Your task to perform on an android device: Search for hotels in Miami Image 0: 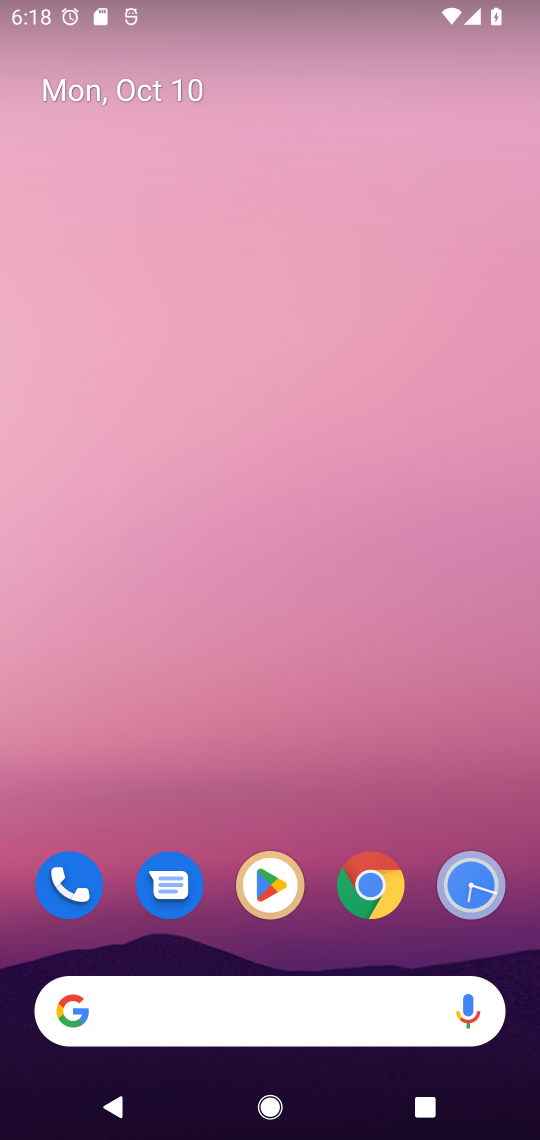
Step 0: click (366, 891)
Your task to perform on an android device: Search for hotels in Miami Image 1: 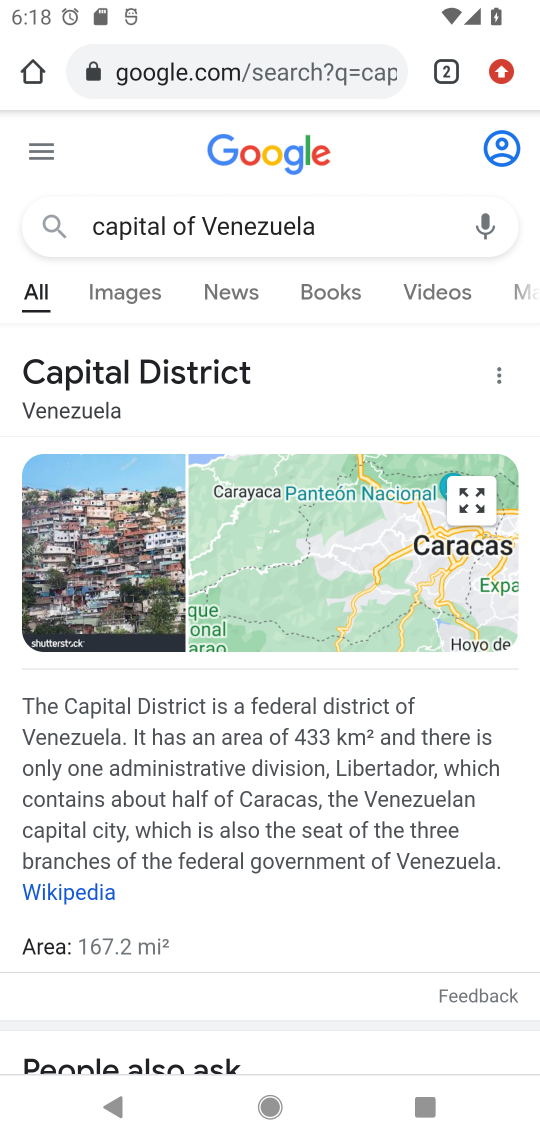
Step 1: click (336, 231)
Your task to perform on an android device: Search for hotels in Miami Image 2: 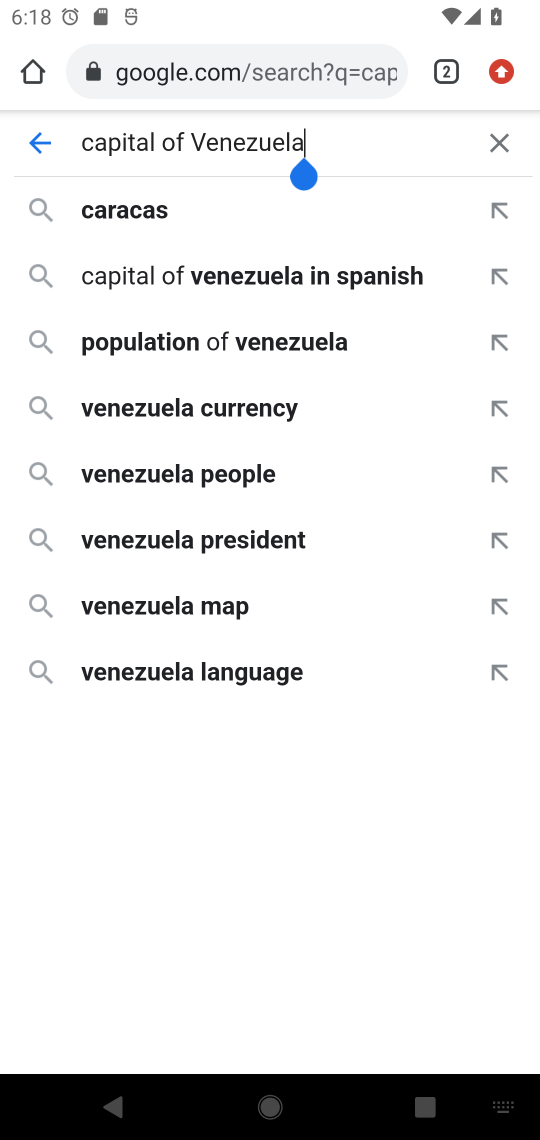
Step 2: click (501, 140)
Your task to perform on an android device: Search for hotels in Miami Image 3: 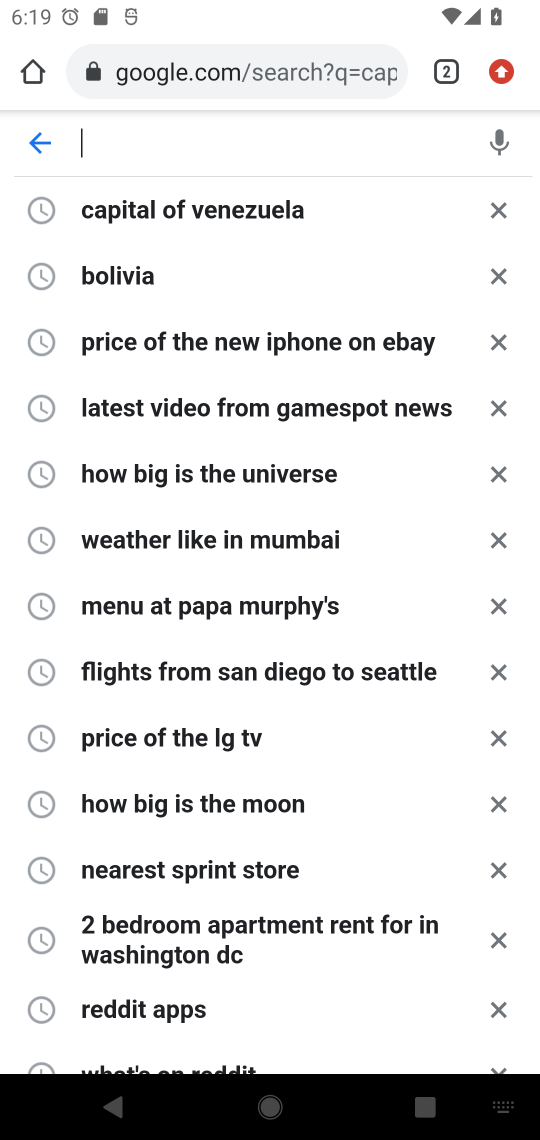
Step 3: type "hotels in Miami"
Your task to perform on an android device: Search for hotels in Miami Image 4: 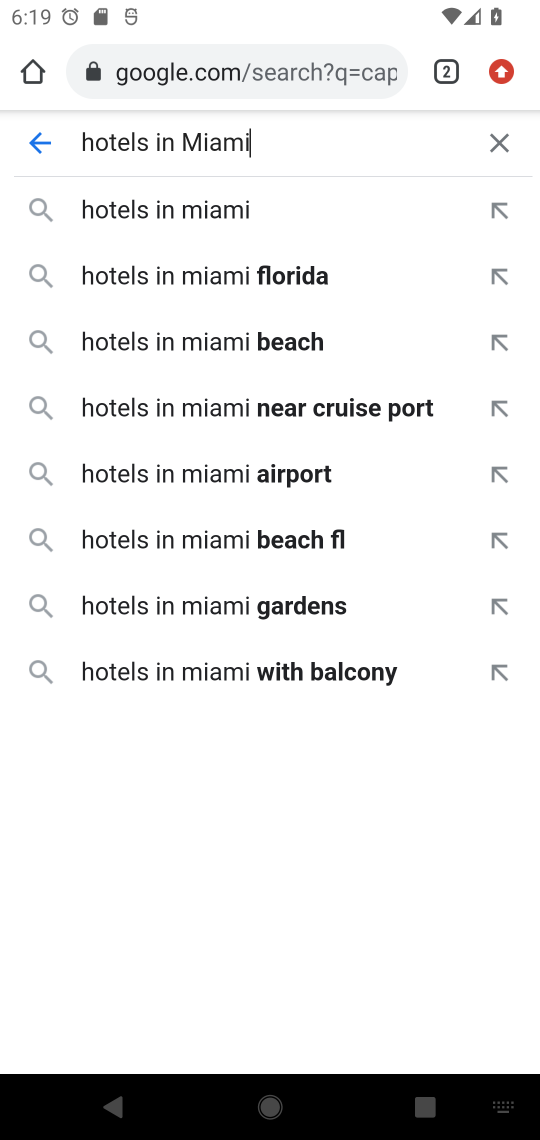
Step 4: click (198, 217)
Your task to perform on an android device: Search for hotels in Miami Image 5: 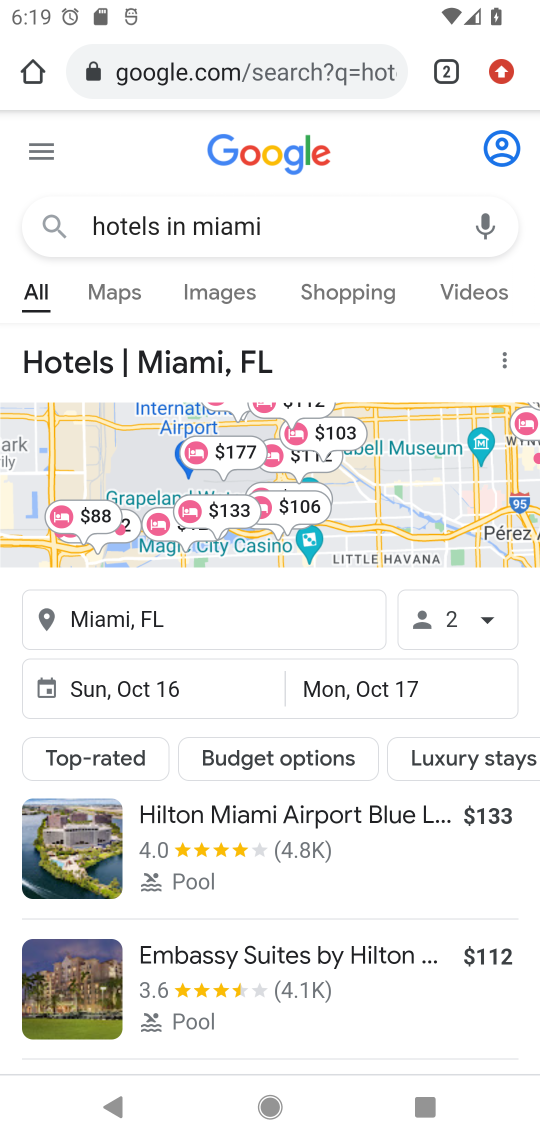
Step 5: drag from (375, 911) to (337, 425)
Your task to perform on an android device: Search for hotels in Miami Image 6: 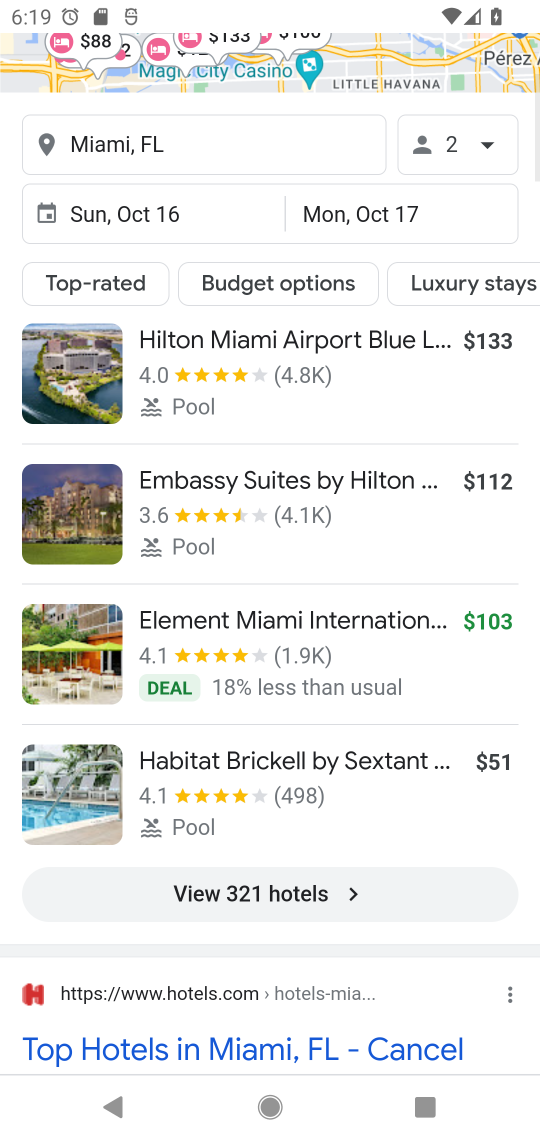
Step 6: click (265, 890)
Your task to perform on an android device: Search for hotels in Miami Image 7: 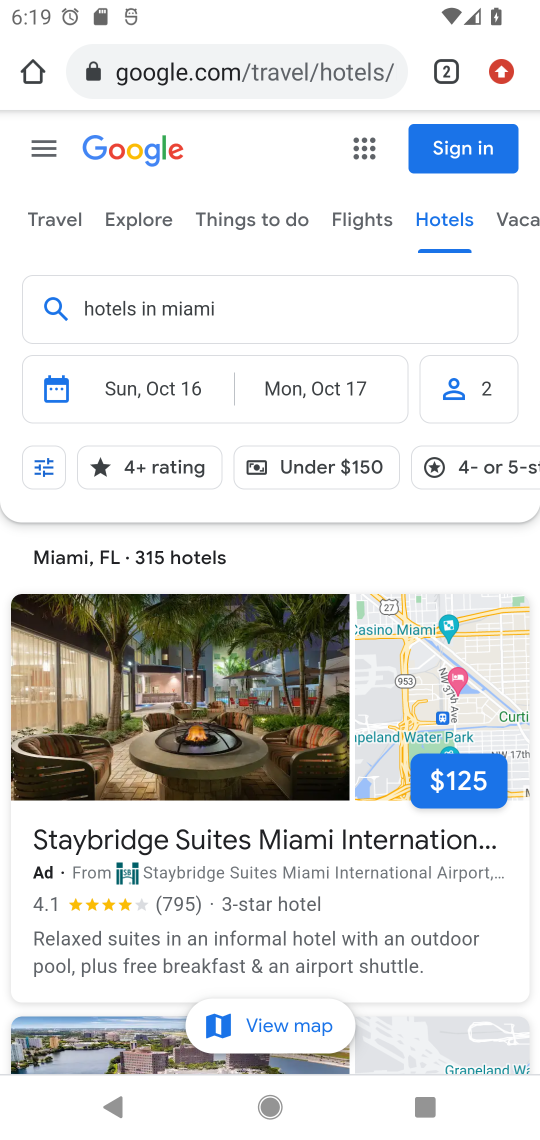
Step 7: task complete